Your task to perform on an android device: turn off notifications settings in the gmail app Image 0: 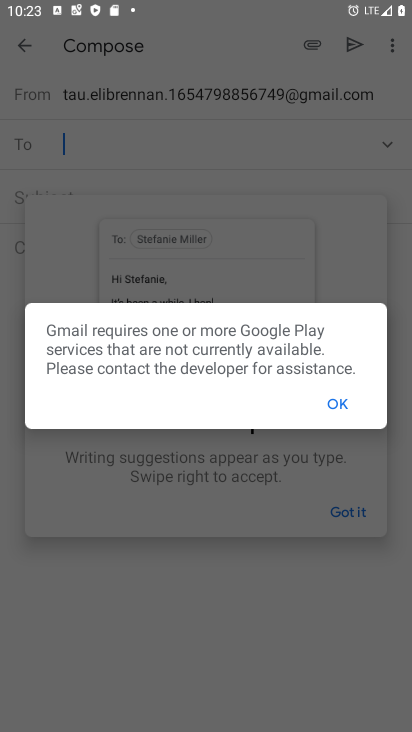
Step 0: press home button
Your task to perform on an android device: turn off notifications settings in the gmail app Image 1: 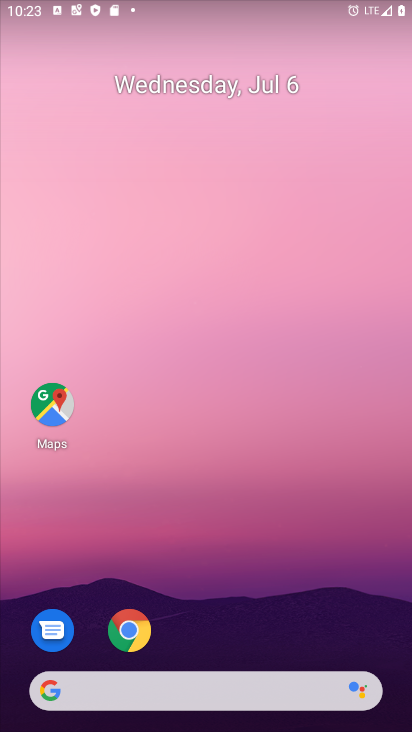
Step 1: drag from (342, 635) to (299, 118)
Your task to perform on an android device: turn off notifications settings in the gmail app Image 2: 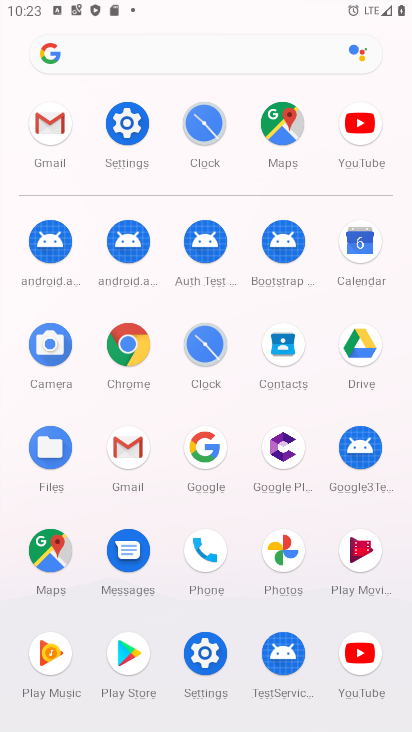
Step 2: click (128, 448)
Your task to perform on an android device: turn off notifications settings in the gmail app Image 3: 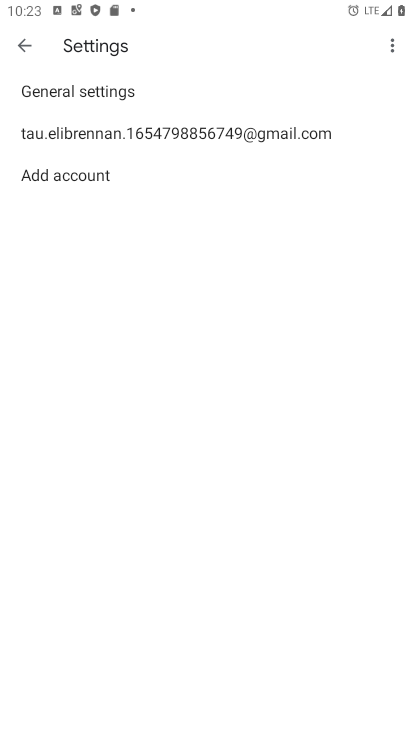
Step 3: press back button
Your task to perform on an android device: turn off notifications settings in the gmail app Image 4: 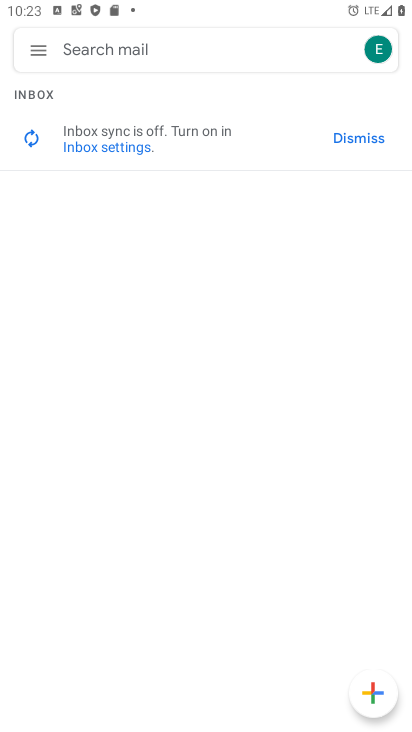
Step 4: click (38, 50)
Your task to perform on an android device: turn off notifications settings in the gmail app Image 5: 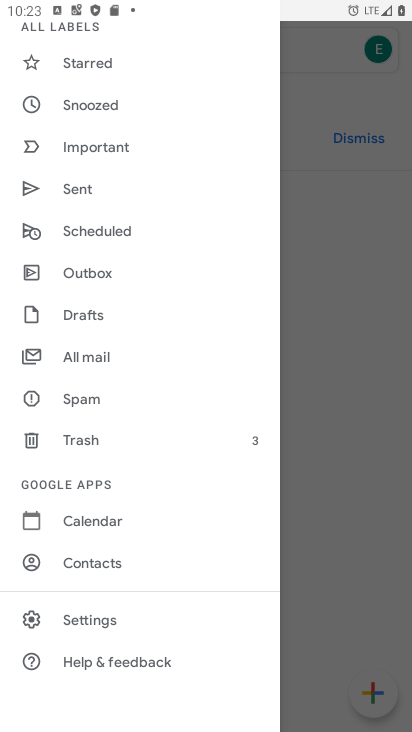
Step 5: click (98, 618)
Your task to perform on an android device: turn off notifications settings in the gmail app Image 6: 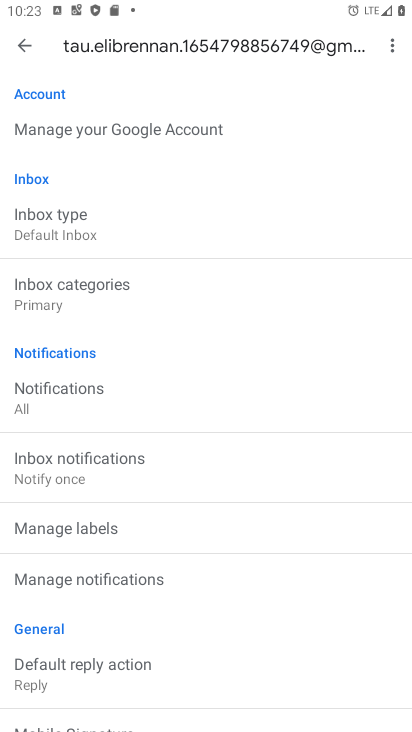
Step 6: click (115, 572)
Your task to perform on an android device: turn off notifications settings in the gmail app Image 7: 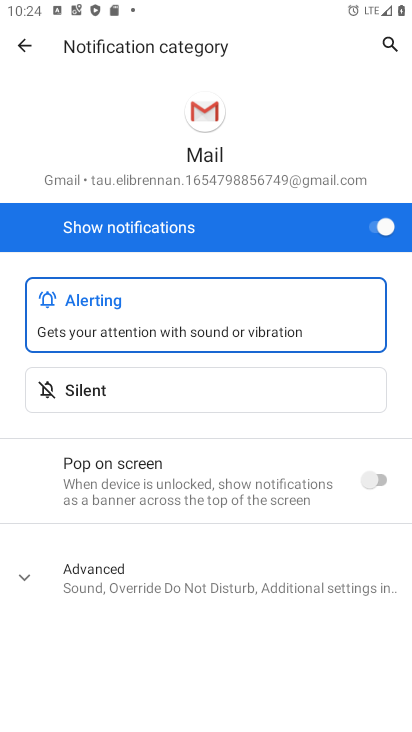
Step 7: click (371, 229)
Your task to perform on an android device: turn off notifications settings in the gmail app Image 8: 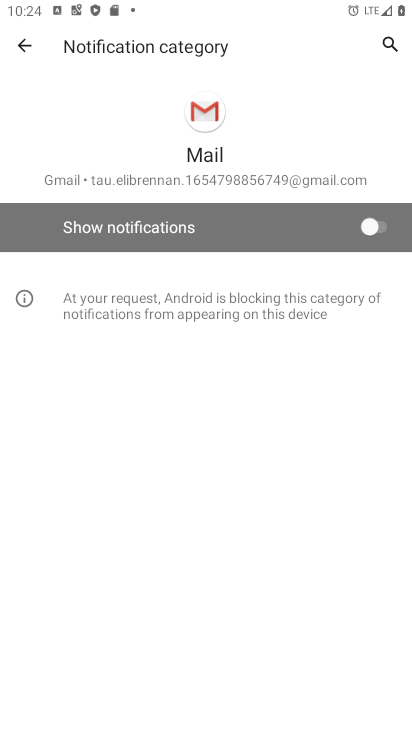
Step 8: task complete